Your task to perform on an android device: Empty the shopping cart on bestbuy.com. Add "jbl flip 4" to the cart on bestbuy.com Image 0: 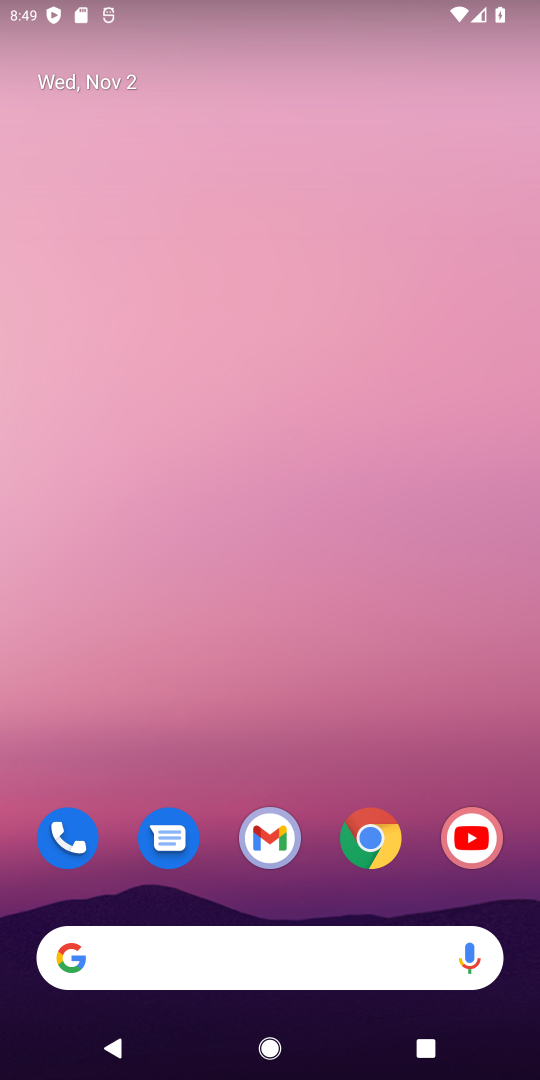
Step 0: click (382, 847)
Your task to perform on an android device: Empty the shopping cart on bestbuy.com. Add "jbl flip 4" to the cart on bestbuy.com Image 1: 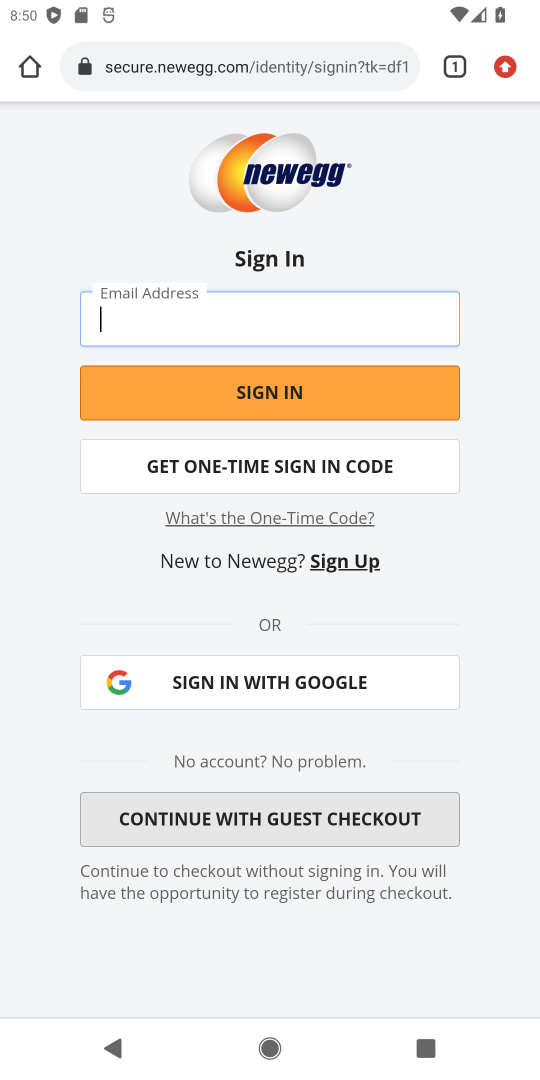
Step 1: click (202, 67)
Your task to perform on an android device: Empty the shopping cart on bestbuy.com. Add "jbl flip 4" to the cart on bestbuy.com Image 2: 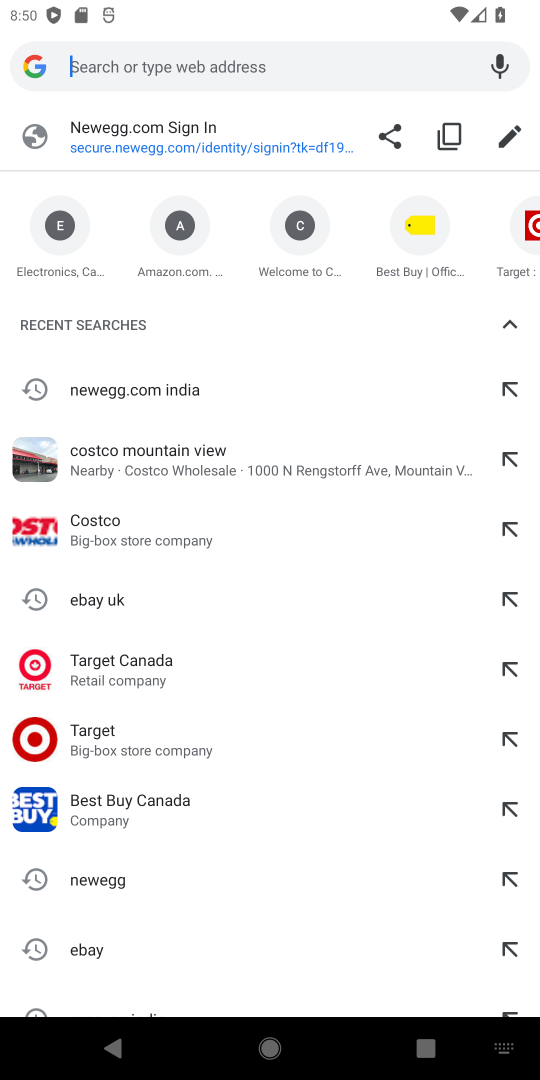
Step 2: type "bestbuy.com"
Your task to perform on an android device: Empty the shopping cart on bestbuy.com. Add "jbl flip 4" to the cart on bestbuy.com Image 3: 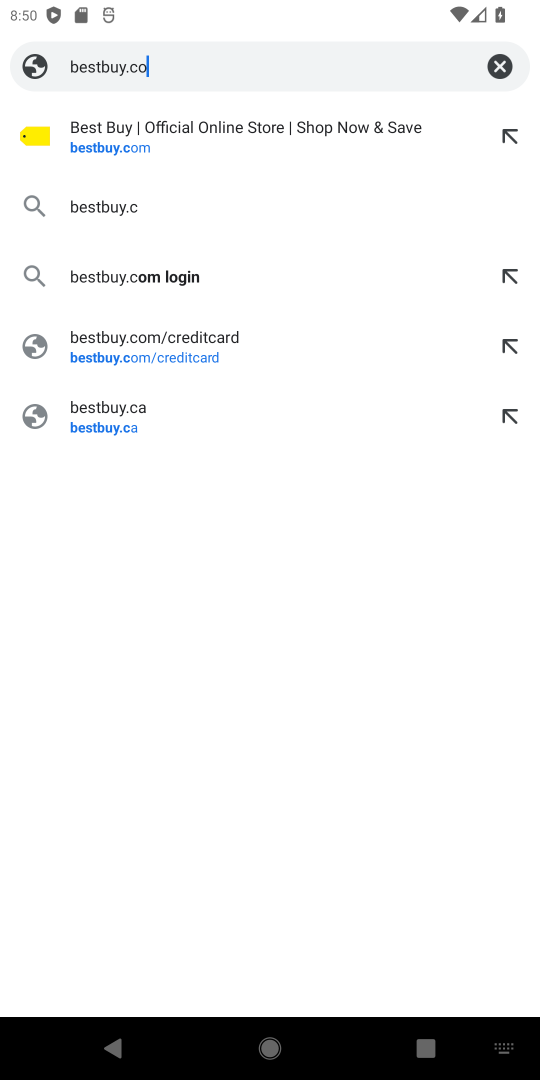
Step 3: type ""
Your task to perform on an android device: Empty the shopping cart on bestbuy.com. Add "jbl flip 4" to the cart on bestbuy.com Image 4: 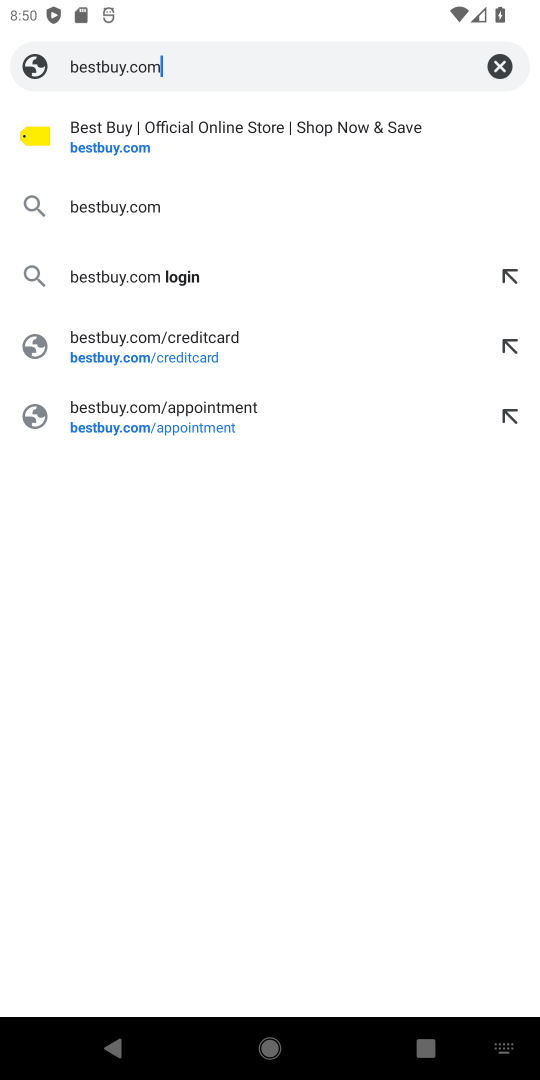
Step 4: press enter
Your task to perform on an android device: Empty the shopping cart on bestbuy.com. Add "jbl flip 4" to the cart on bestbuy.com Image 5: 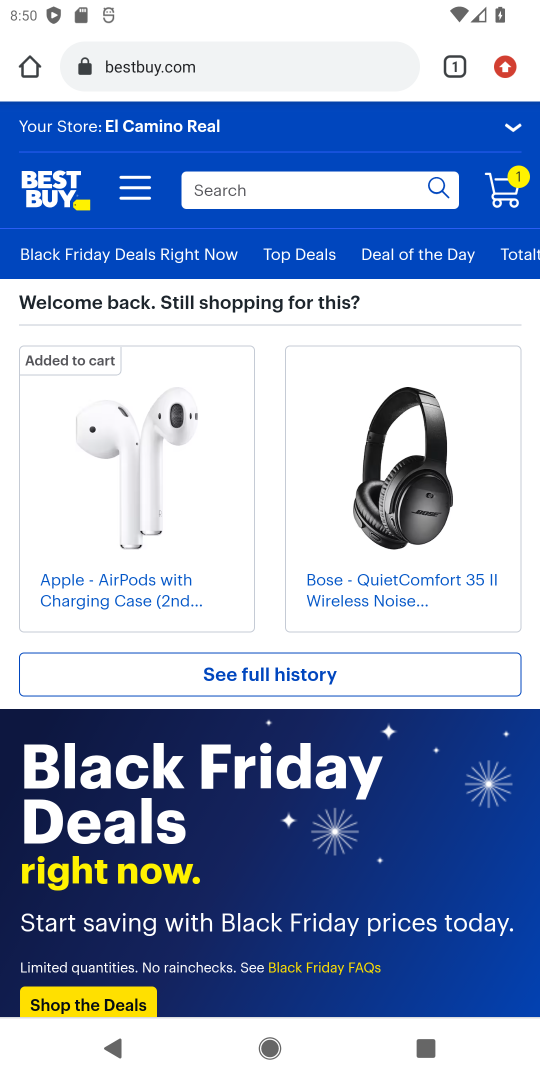
Step 5: click (508, 198)
Your task to perform on an android device: Empty the shopping cart on bestbuy.com. Add "jbl flip 4" to the cart on bestbuy.com Image 6: 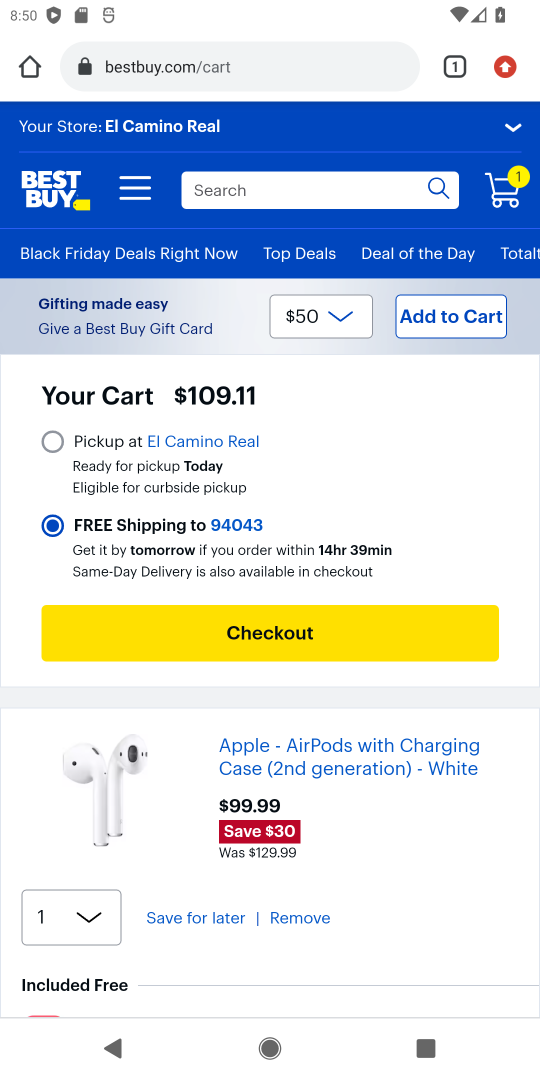
Step 6: click (282, 917)
Your task to perform on an android device: Empty the shopping cart on bestbuy.com. Add "jbl flip 4" to the cart on bestbuy.com Image 7: 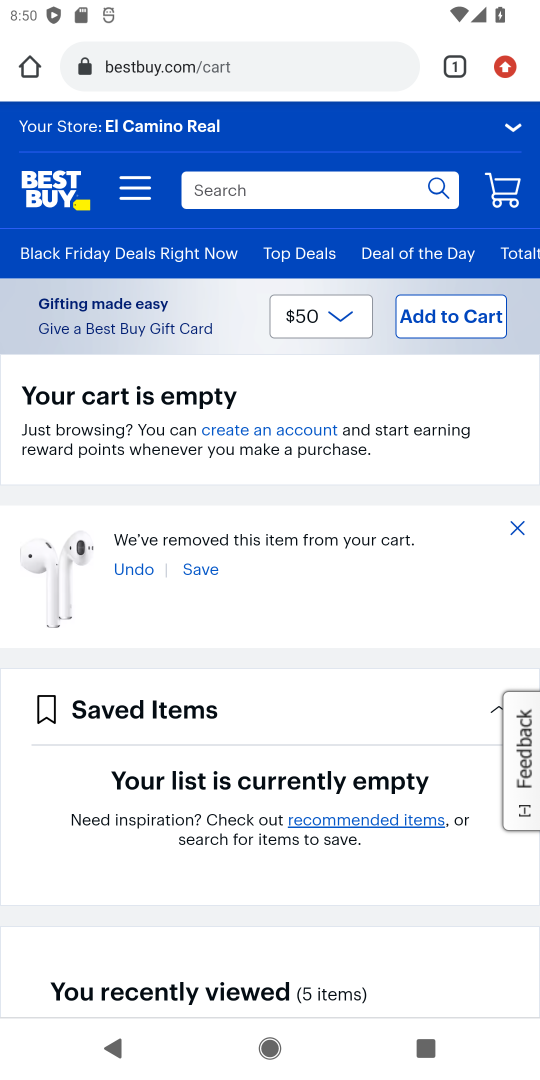
Step 7: click (278, 201)
Your task to perform on an android device: Empty the shopping cart on bestbuy.com. Add "jbl flip 4" to the cart on bestbuy.com Image 8: 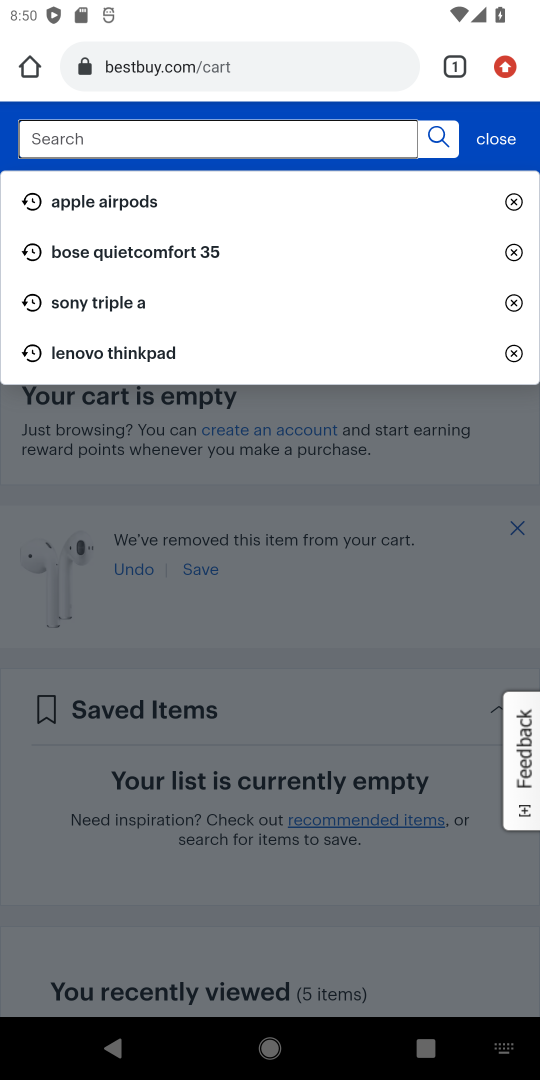
Step 8: type "jbl flip 4"
Your task to perform on an android device: Empty the shopping cart on bestbuy.com. Add "jbl flip 4" to the cart on bestbuy.com Image 9: 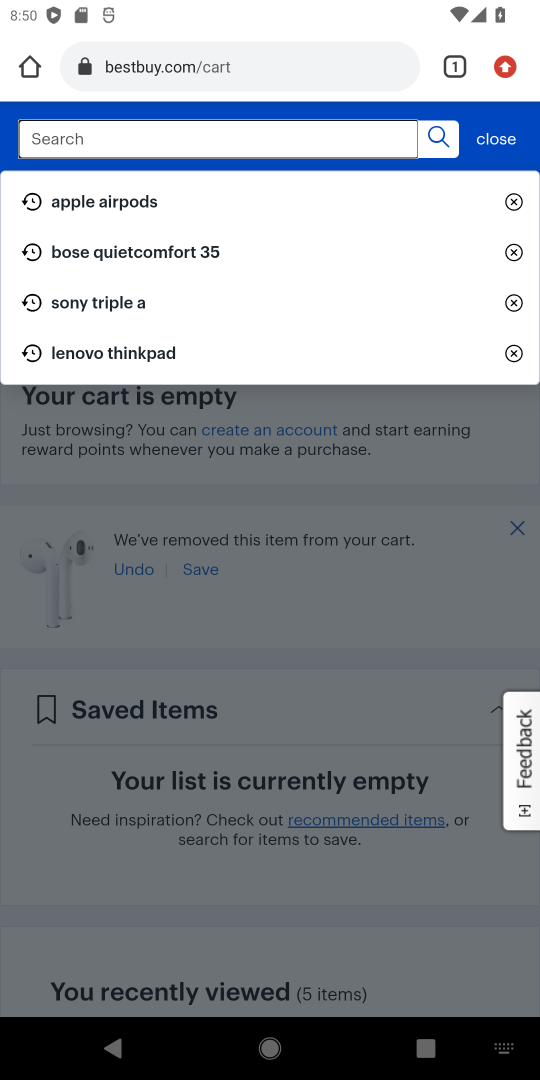
Step 9: type ""
Your task to perform on an android device: Empty the shopping cart on bestbuy.com. Add "jbl flip 4" to the cart on bestbuy.com Image 10: 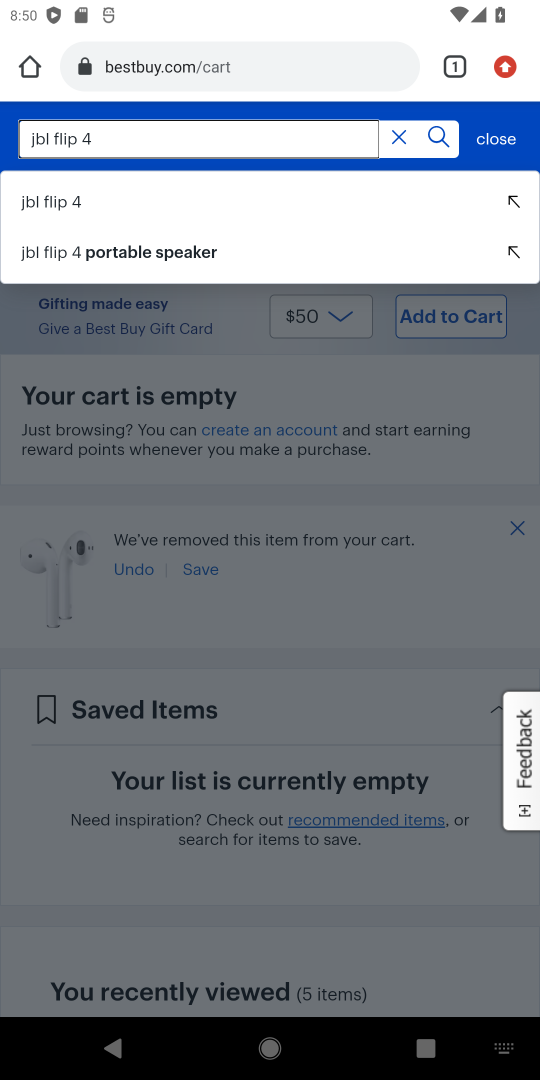
Step 10: press enter
Your task to perform on an android device: Empty the shopping cart on bestbuy.com. Add "jbl flip 4" to the cart on bestbuy.com Image 11: 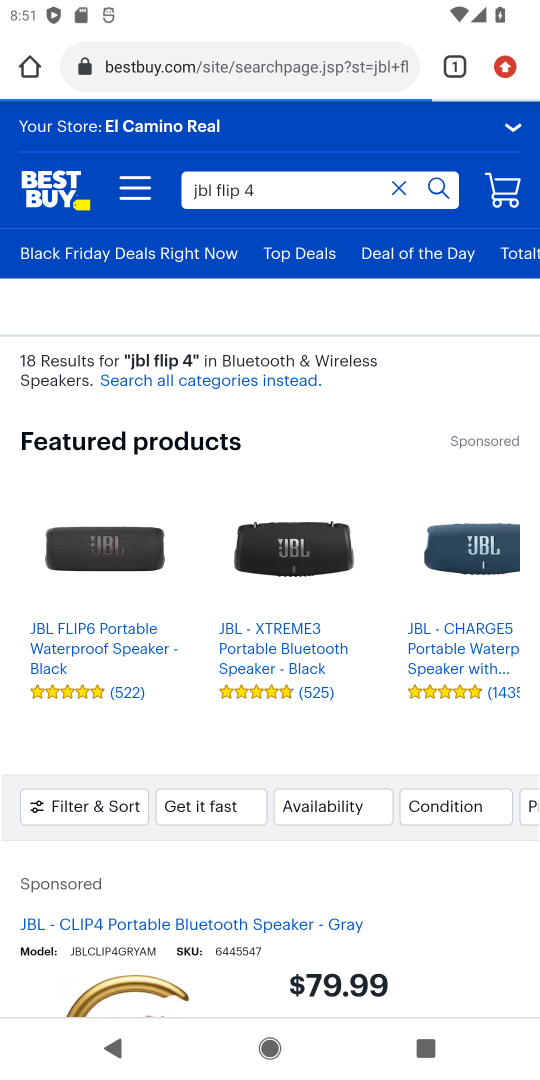
Step 11: task complete